Your task to perform on an android device: clear history in the chrome app Image 0: 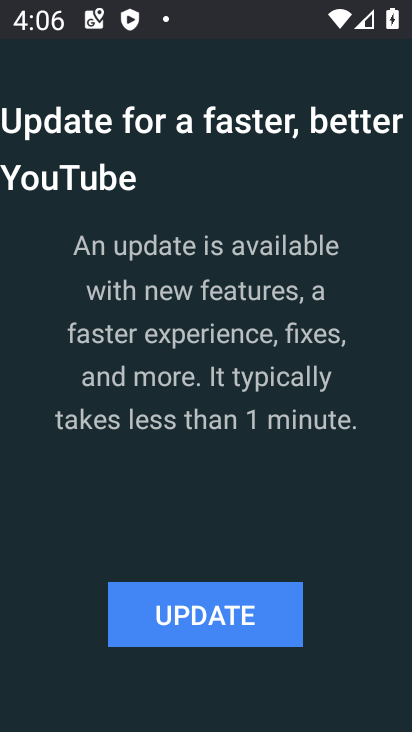
Step 0: press home button
Your task to perform on an android device: clear history in the chrome app Image 1: 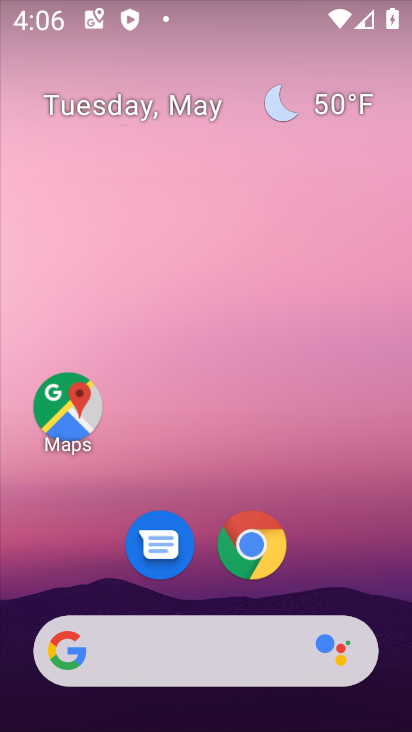
Step 1: click (248, 556)
Your task to perform on an android device: clear history in the chrome app Image 2: 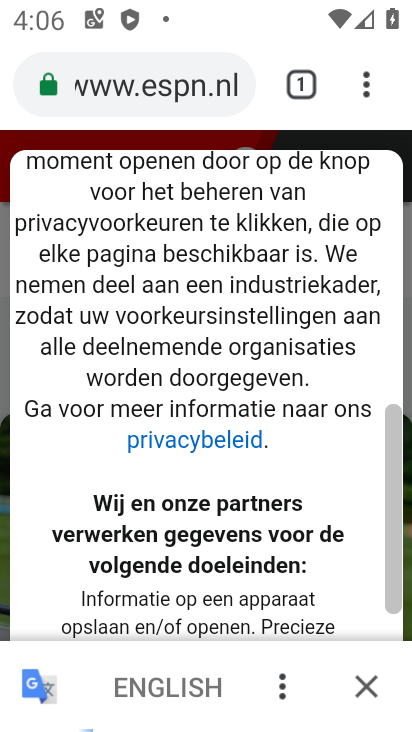
Step 2: click (375, 99)
Your task to perform on an android device: clear history in the chrome app Image 3: 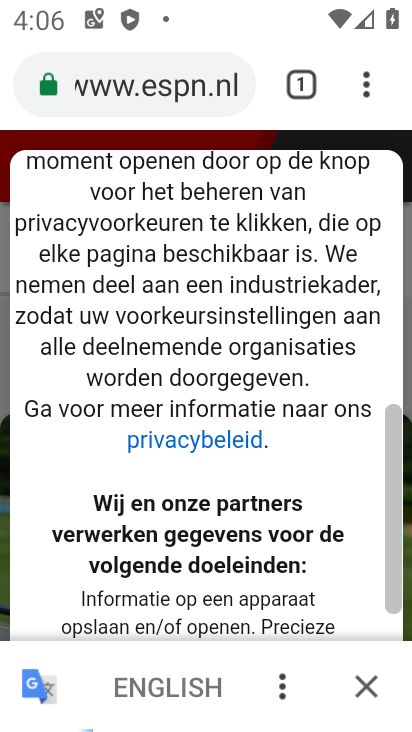
Step 3: click (363, 111)
Your task to perform on an android device: clear history in the chrome app Image 4: 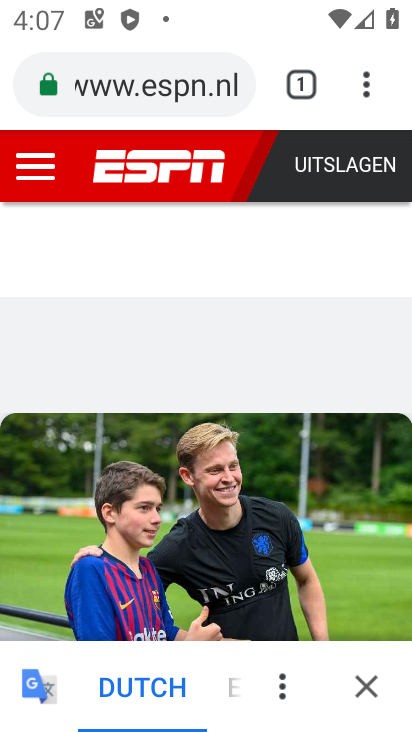
Step 4: click (366, 87)
Your task to perform on an android device: clear history in the chrome app Image 5: 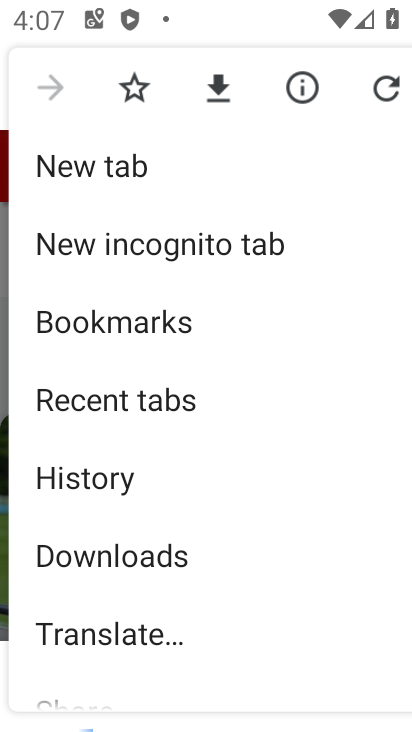
Step 5: click (87, 490)
Your task to perform on an android device: clear history in the chrome app Image 6: 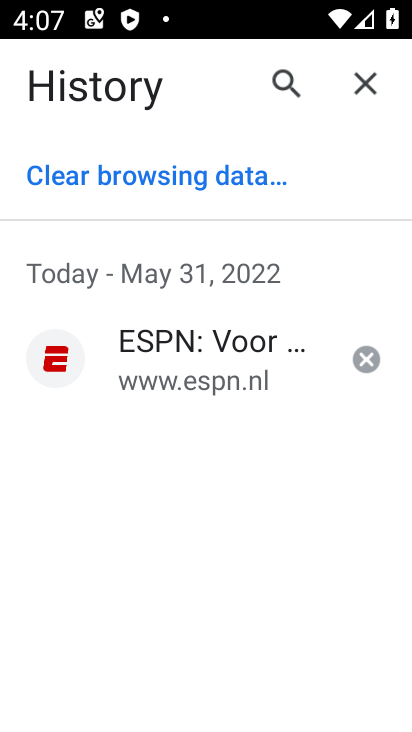
Step 6: click (210, 182)
Your task to perform on an android device: clear history in the chrome app Image 7: 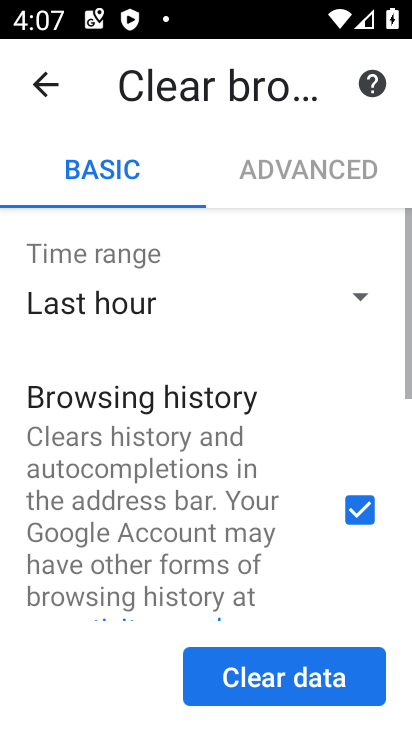
Step 7: drag from (322, 509) to (361, 240)
Your task to perform on an android device: clear history in the chrome app Image 8: 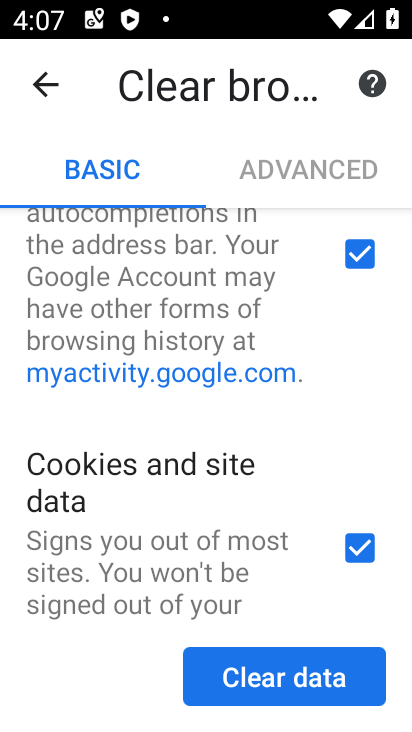
Step 8: drag from (327, 503) to (329, 308)
Your task to perform on an android device: clear history in the chrome app Image 9: 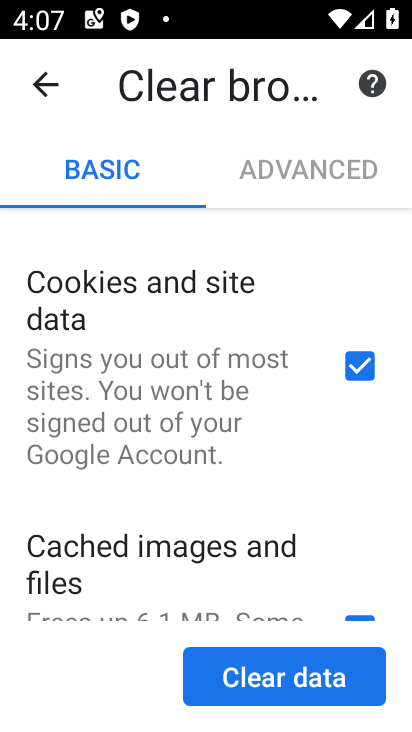
Step 9: click (262, 691)
Your task to perform on an android device: clear history in the chrome app Image 10: 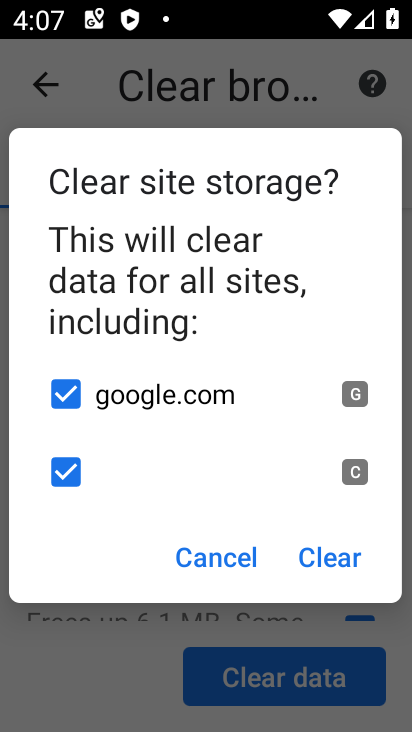
Step 10: click (350, 547)
Your task to perform on an android device: clear history in the chrome app Image 11: 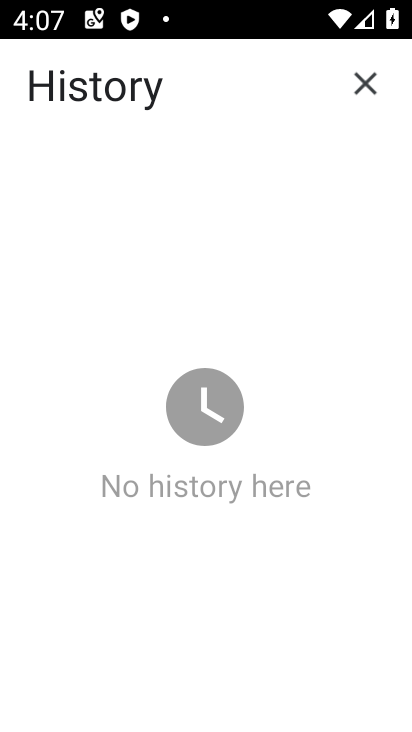
Step 11: task complete